Your task to perform on an android device: clear all cookies in the chrome app Image 0: 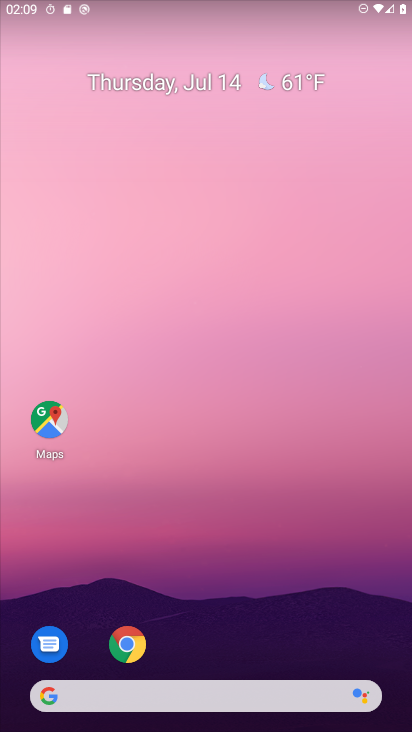
Step 0: drag from (260, 594) to (256, 148)
Your task to perform on an android device: clear all cookies in the chrome app Image 1: 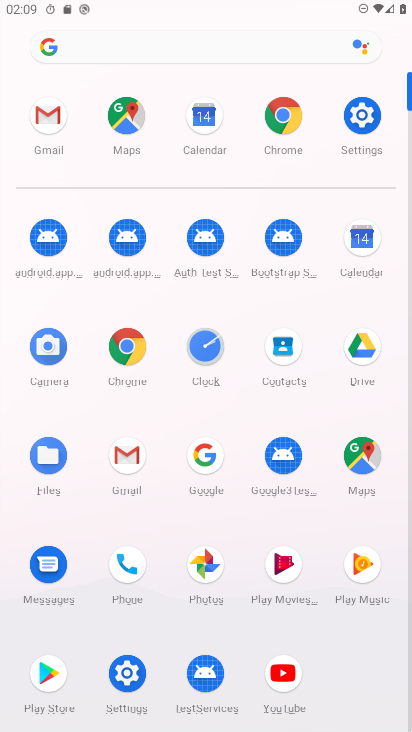
Step 1: click (281, 116)
Your task to perform on an android device: clear all cookies in the chrome app Image 2: 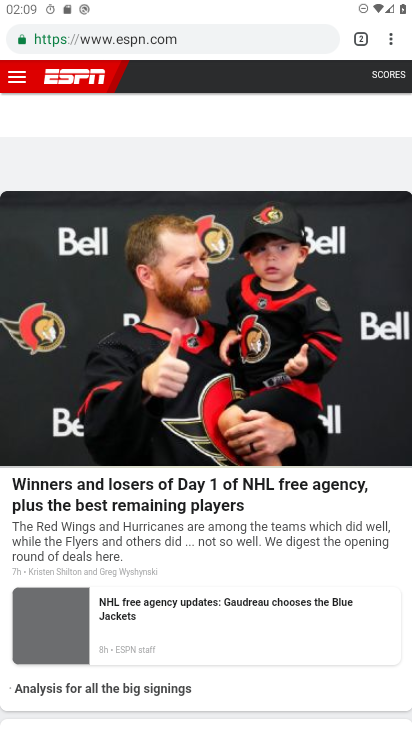
Step 2: drag from (390, 42) to (266, 216)
Your task to perform on an android device: clear all cookies in the chrome app Image 3: 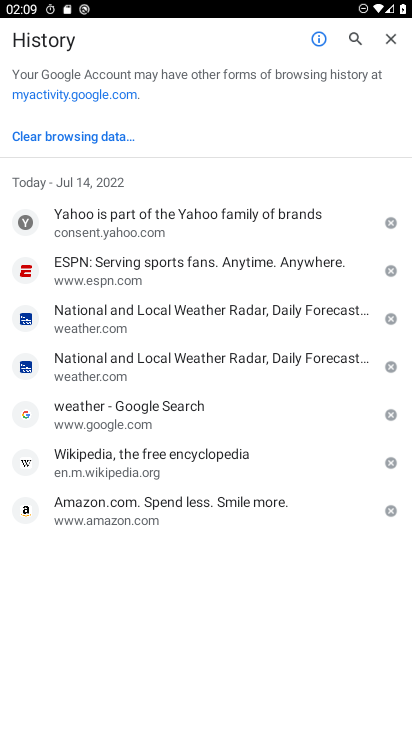
Step 3: click (50, 141)
Your task to perform on an android device: clear all cookies in the chrome app Image 4: 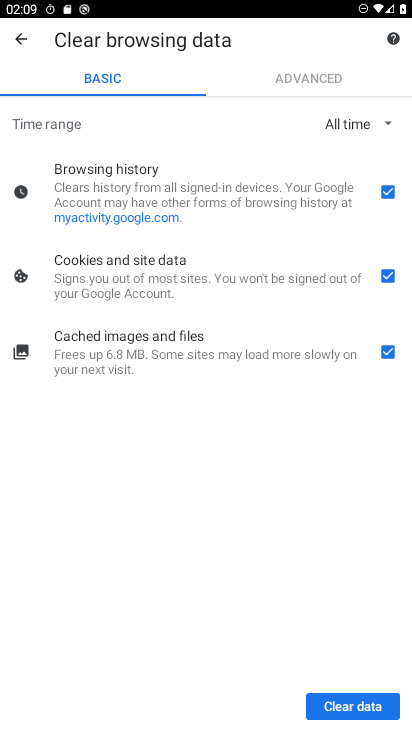
Step 4: click (363, 707)
Your task to perform on an android device: clear all cookies in the chrome app Image 5: 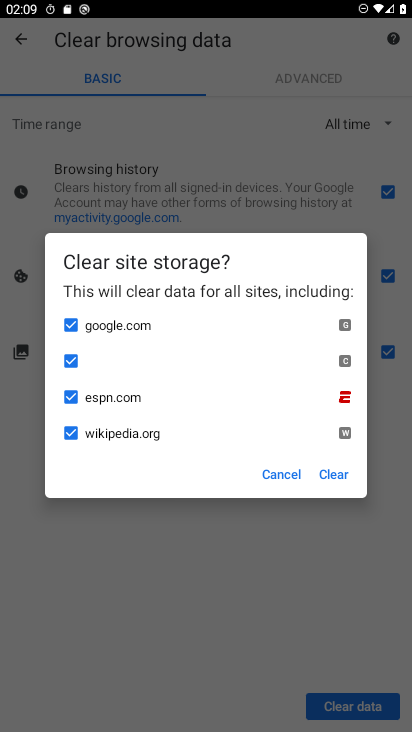
Step 5: click (332, 466)
Your task to perform on an android device: clear all cookies in the chrome app Image 6: 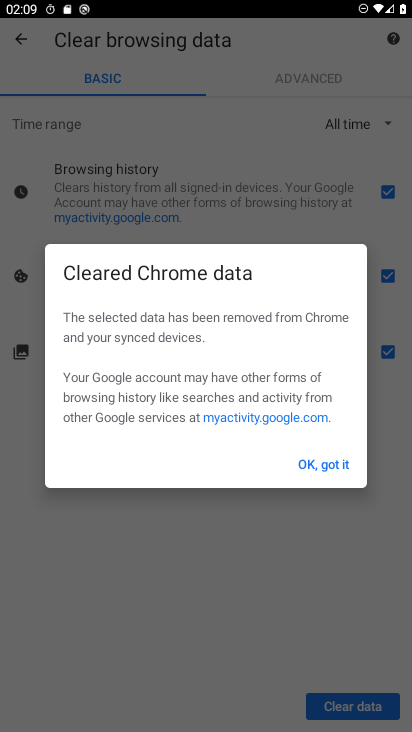
Step 6: task complete